Your task to perform on an android device: Open Reddit.com Image 0: 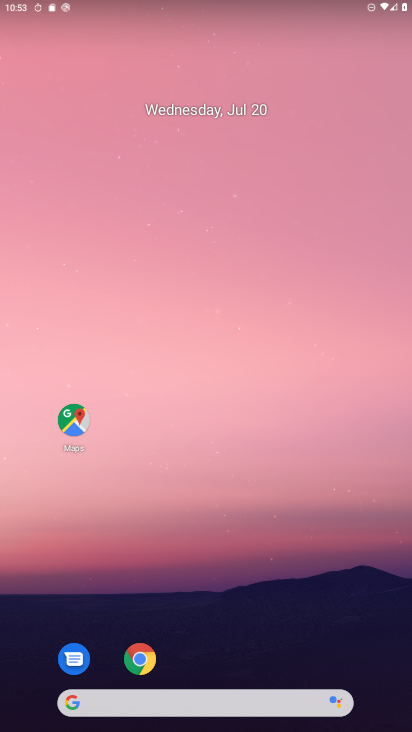
Step 0: drag from (255, 633) to (265, 167)
Your task to perform on an android device: Open Reddit.com Image 1: 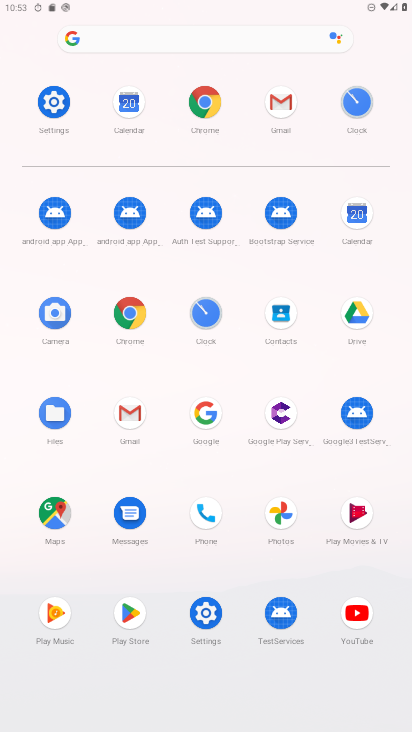
Step 1: click (125, 308)
Your task to perform on an android device: Open Reddit.com Image 2: 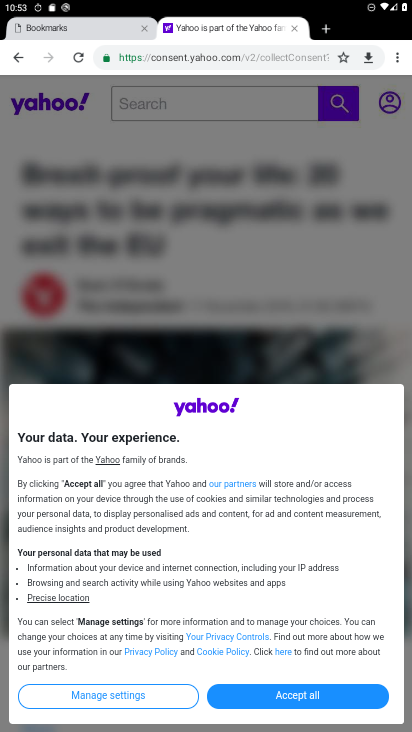
Step 2: click (209, 53)
Your task to perform on an android device: Open Reddit.com Image 3: 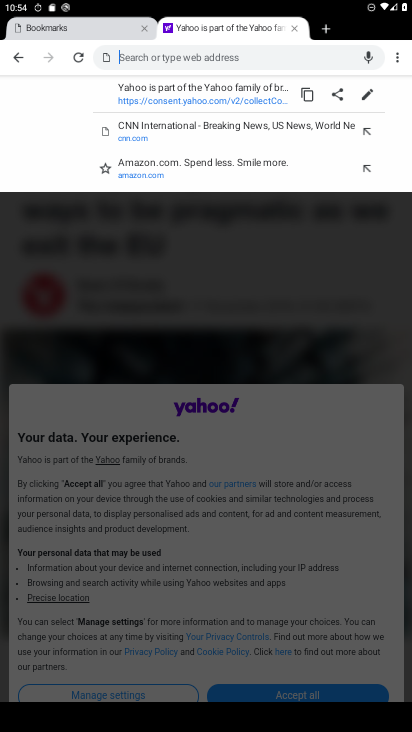
Step 3: type "reddit.com"
Your task to perform on an android device: Open Reddit.com Image 4: 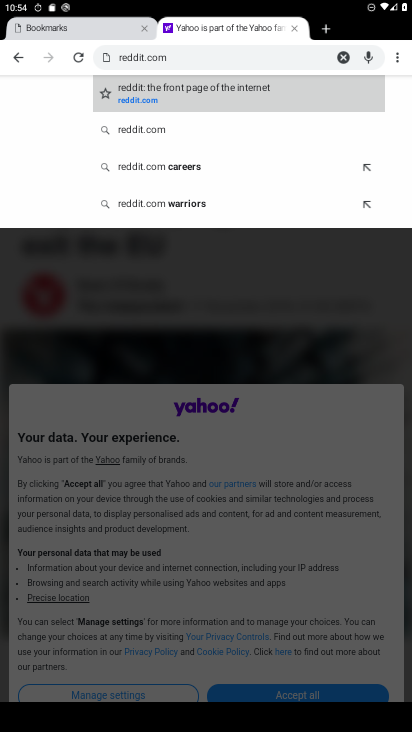
Step 4: click (128, 99)
Your task to perform on an android device: Open Reddit.com Image 5: 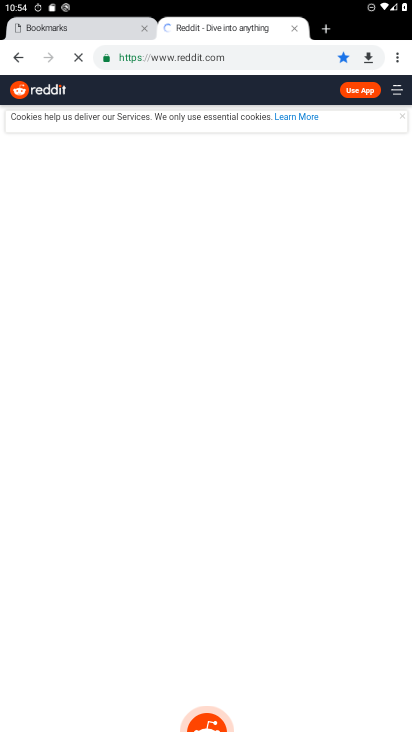
Step 5: task complete